Your task to perform on an android device: change the clock display to digital Image 0: 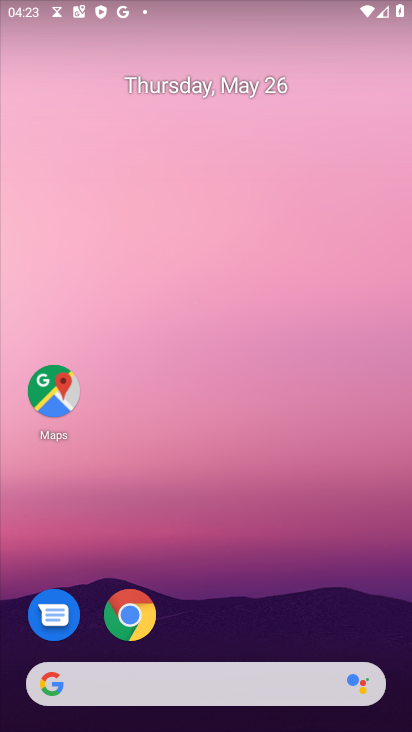
Step 0: drag from (220, 622) to (224, 42)
Your task to perform on an android device: change the clock display to digital Image 1: 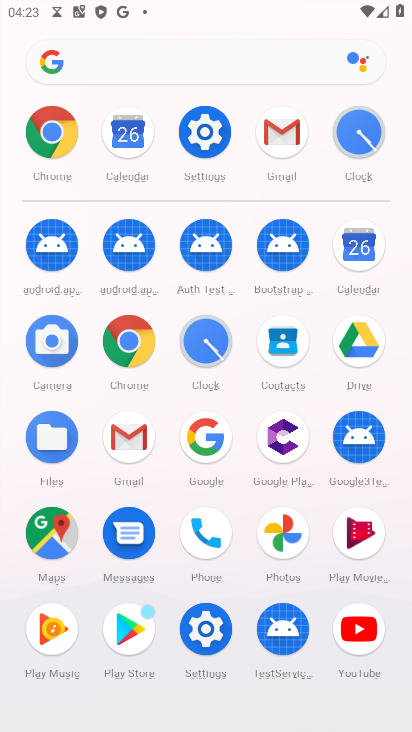
Step 1: click (357, 145)
Your task to perform on an android device: change the clock display to digital Image 2: 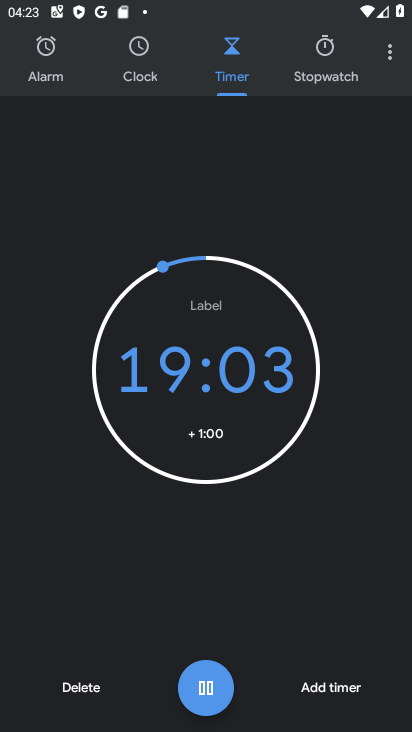
Step 2: click (390, 53)
Your task to perform on an android device: change the clock display to digital Image 3: 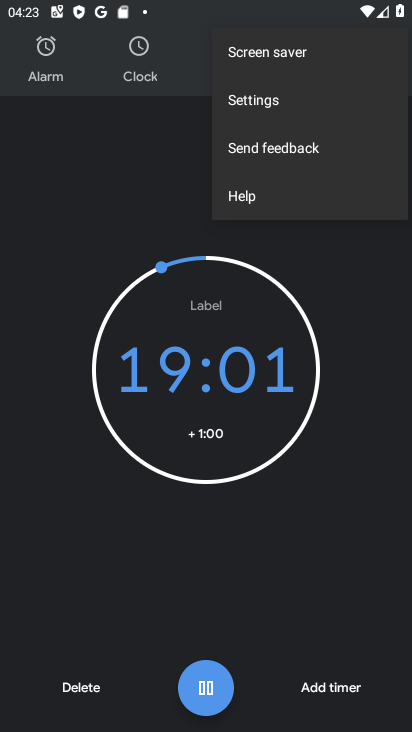
Step 3: click (272, 91)
Your task to perform on an android device: change the clock display to digital Image 4: 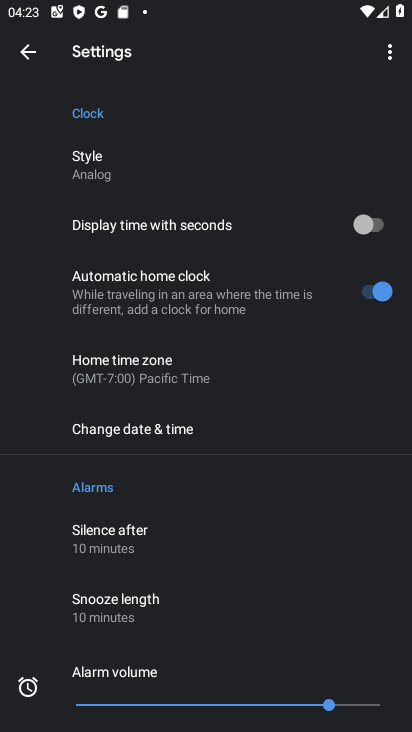
Step 4: click (105, 175)
Your task to perform on an android device: change the clock display to digital Image 5: 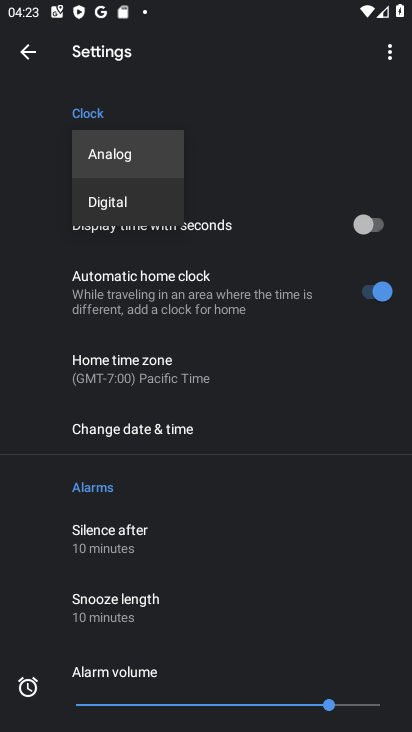
Step 5: click (124, 207)
Your task to perform on an android device: change the clock display to digital Image 6: 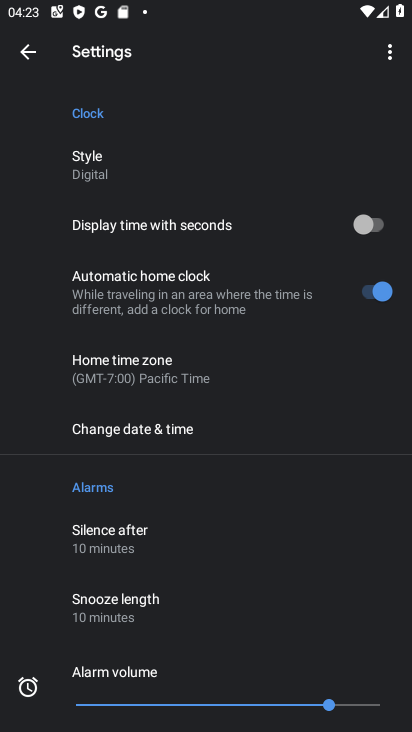
Step 6: task complete